Your task to perform on an android device: Open Yahoo.com Image 0: 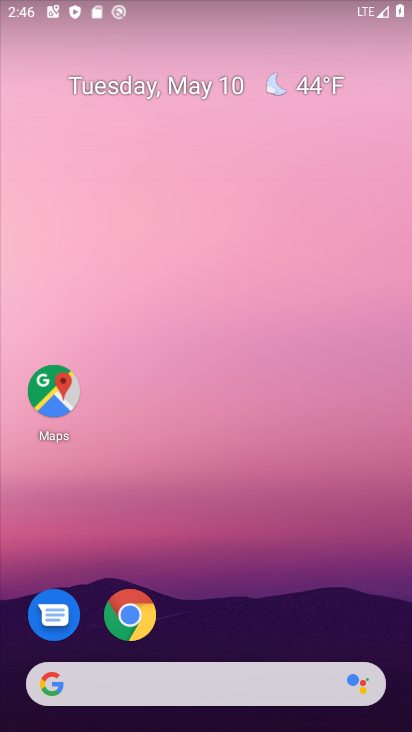
Step 0: click (129, 620)
Your task to perform on an android device: Open Yahoo.com Image 1: 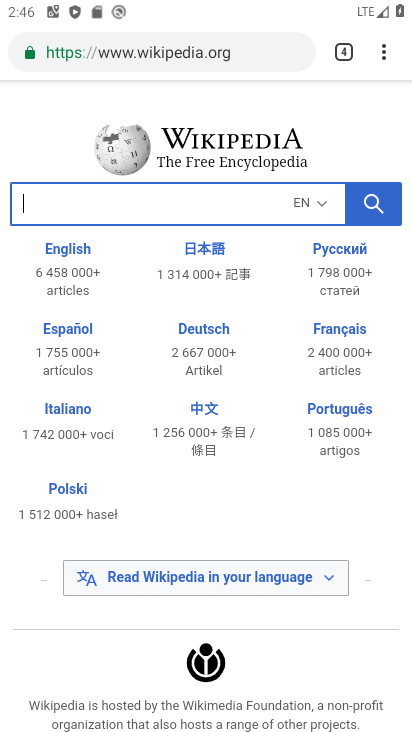
Step 1: click (208, 58)
Your task to perform on an android device: Open Yahoo.com Image 2: 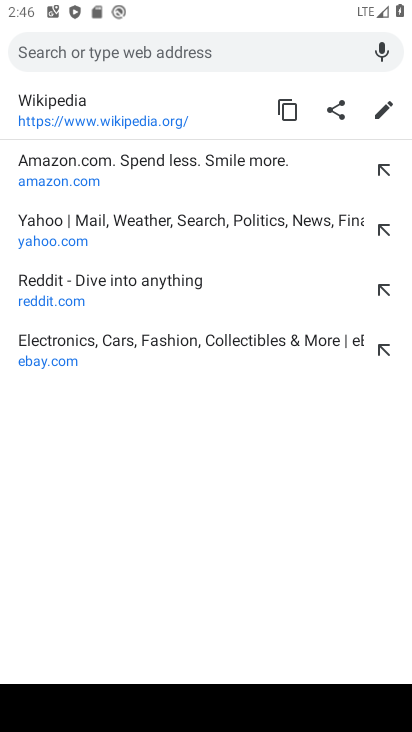
Step 2: type " Yahoo.com"
Your task to perform on an android device: Open Yahoo.com Image 3: 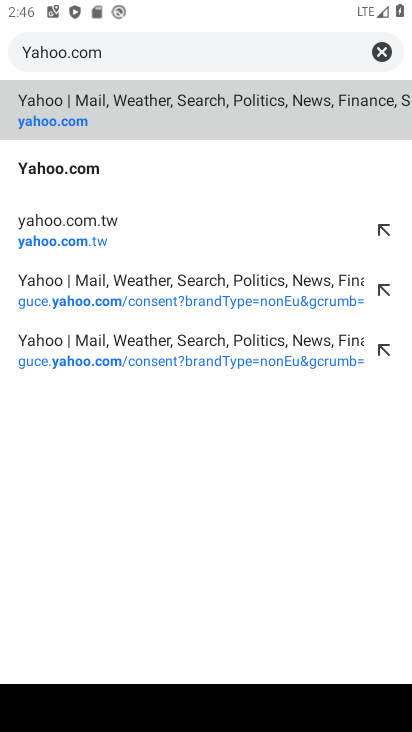
Step 3: click (35, 133)
Your task to perform on an android device: Open Yahoo.com Image 4: 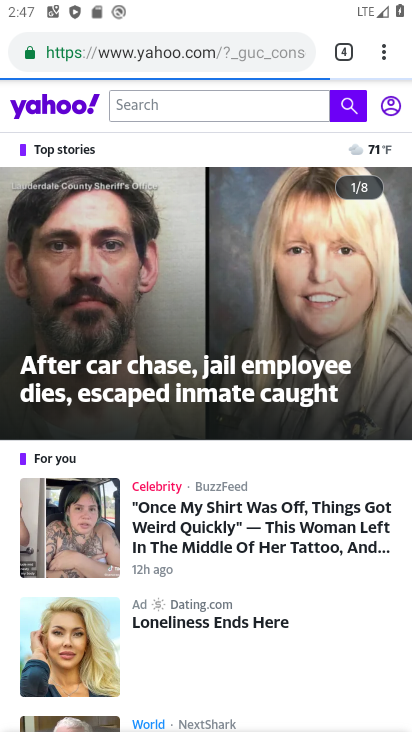
Step 4: task complete